Your task to perform on an android device: toggle show notifications on the lock screen Image 0: 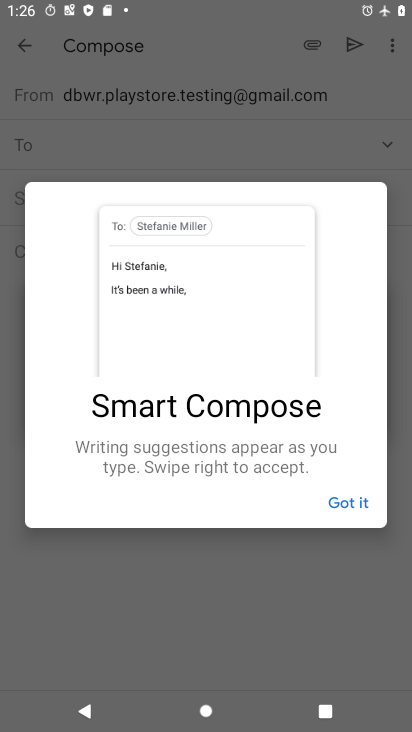
Step 0: press home button
Your task to perform on an android device: toggle show notifications on the lock screen Image 1: 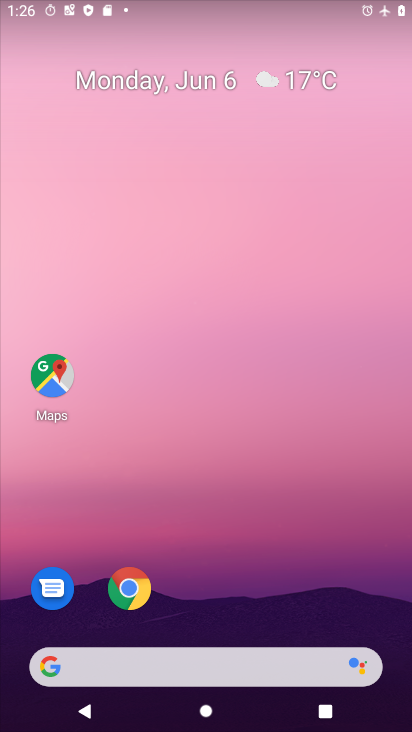
Step 1: drag from (257, 377) to (240, 114)
Your task to perform on an android device: toggle show notifications on the lock screen Image 2: 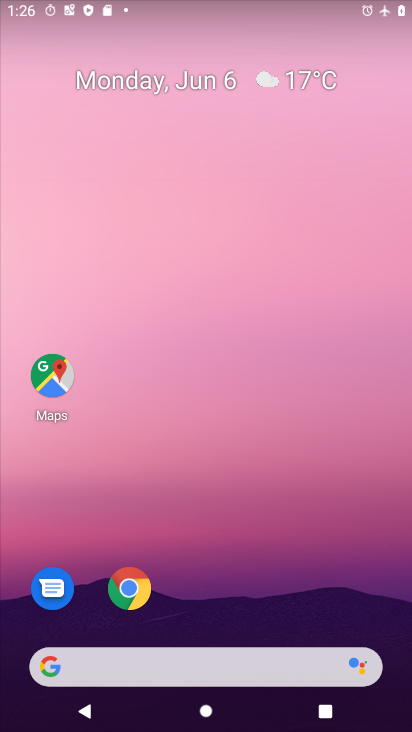
Step 2: drag from (204, 532) to (227, 165)
Your task to perform on an android device: toggle show notifications on the lock screen Image 3: 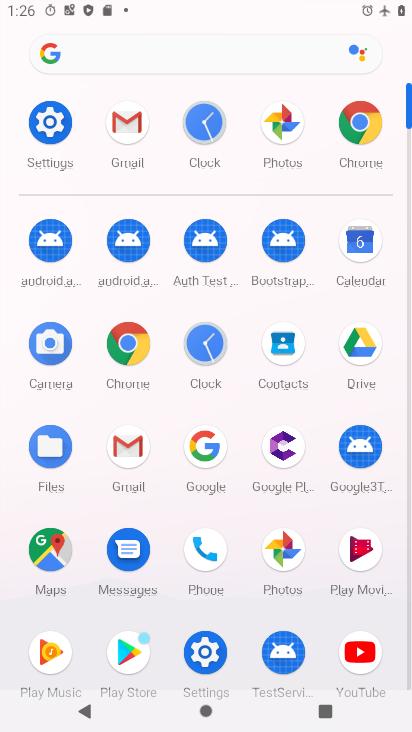
Step 3: click (48, 126)
Your task to perform on an android device: toggle show notifications on the lock screen Image 4: 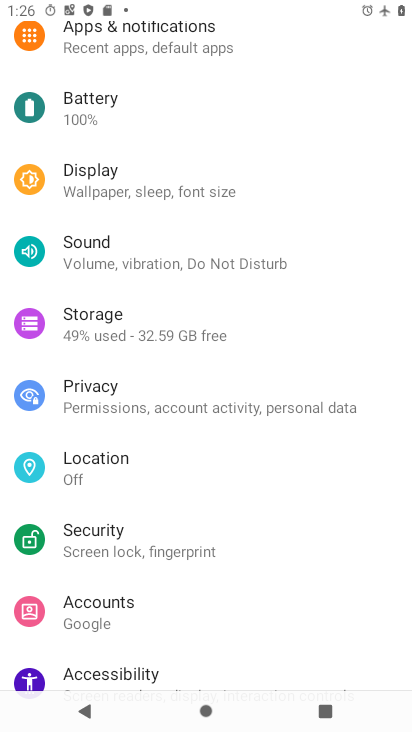
Step 4: click (170, 47)
Your task to perform on an android device: toggle show notifications on the lock screen Image 5: 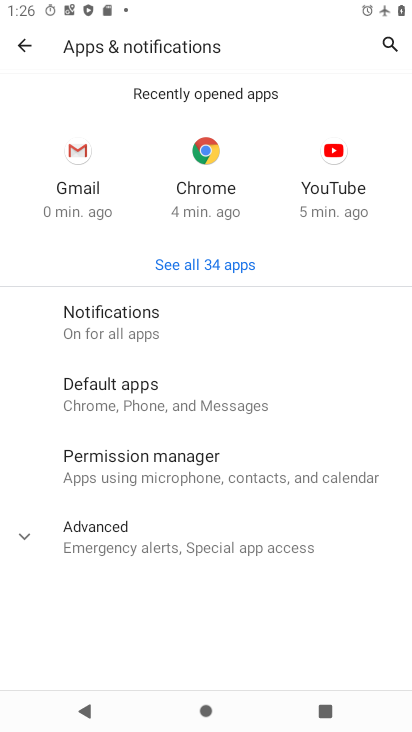
Step 5: click (130, 323)
Your task to perform on an android device: toggle show notifications on the lock screen Image 6: 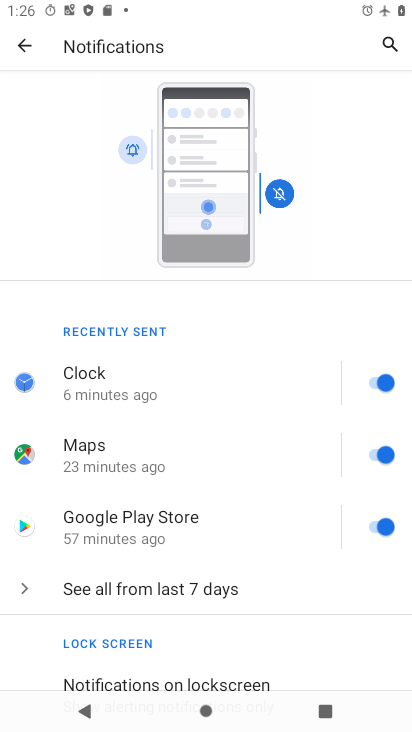
Step 6: drag from (200, 653) to (230, 301)
Your task to perform on an android device: toggle show notifications on the lock screen Image 7: 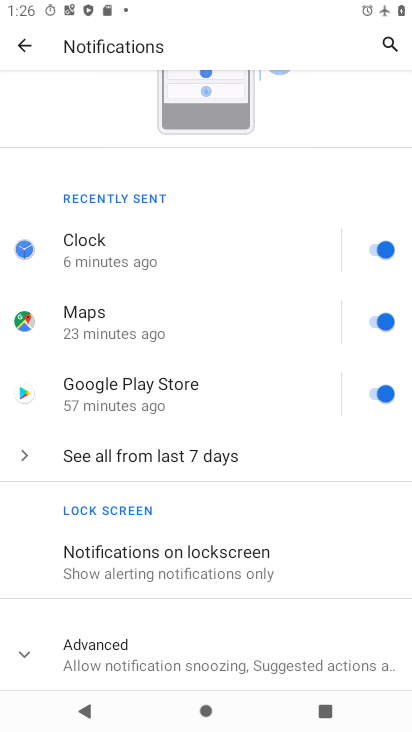
Step 7: click (194, 552)
Your task to perform on an android device: toggle show notifications on the lock screen Image 8: 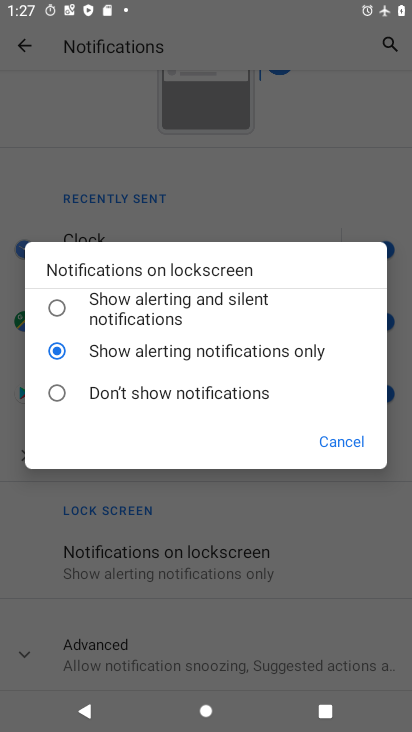
Step 8: click (170, 310)
Your task to perform on an android device: toggle show notifications on the lock screen Image 9: 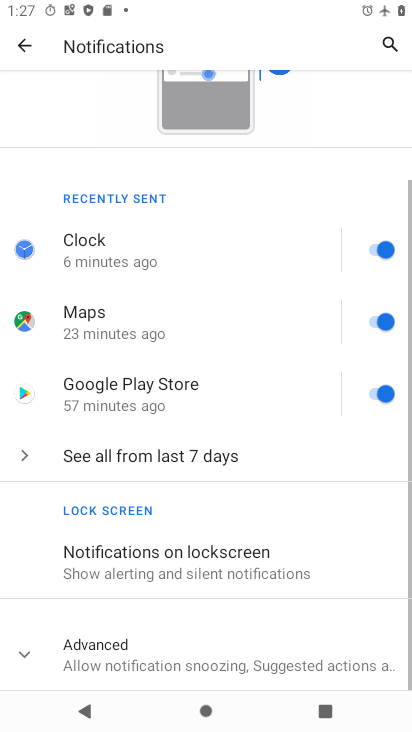
Step 9: task complete